Your task to perform on an android device: What's on my calendar tomorrow? Image 0: 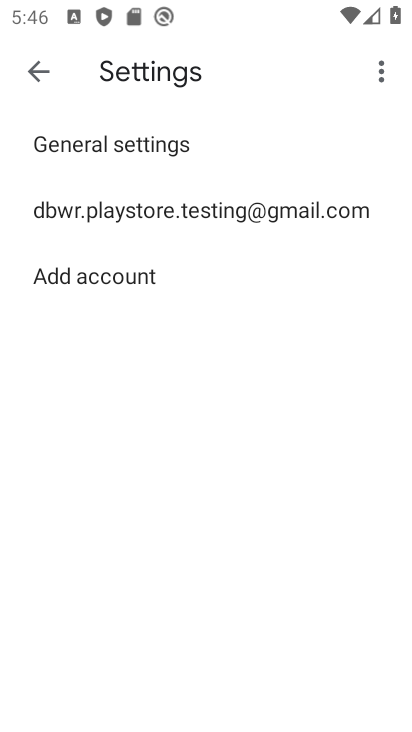
Step 0: press home button
Your task to perform on an android device: What's on my calendar tomorrow? Image 1: 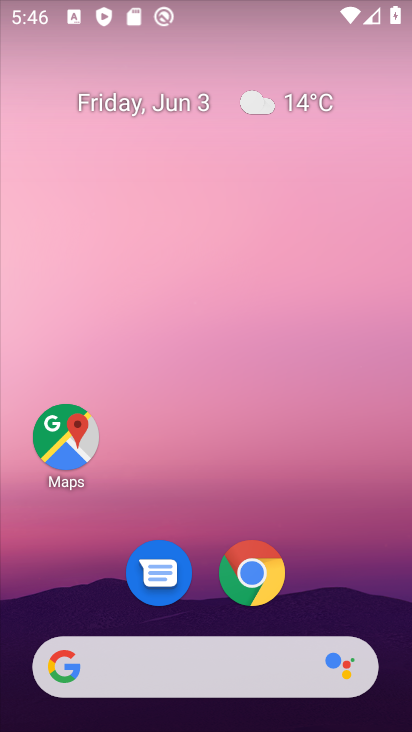
Step 1: drag from (268, 651) to (201, 1)
Your task to perform on an android device: What's on my calendar tomorrow? Image 2: 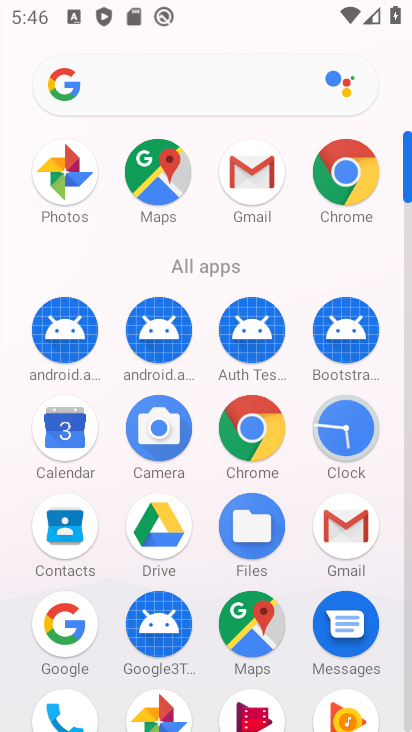
Step 2: click (71, 446)
Your task to perform on an android device: What's on my calendar tomorrow? Image 3: 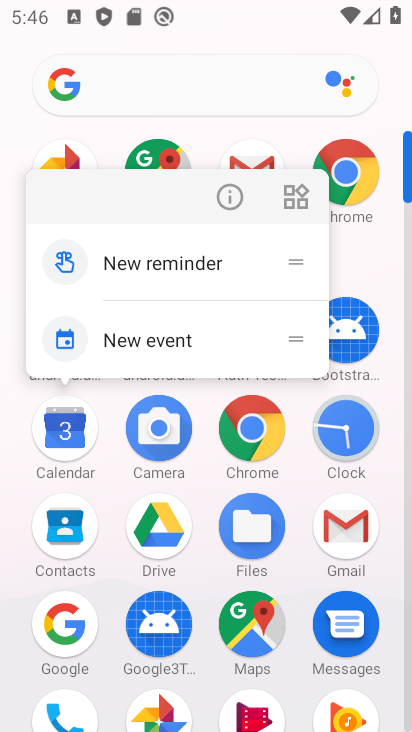
Step 3: click (74, 446)
Your task to perform on an android device: What's on my calendar tomorrow? Image 4: 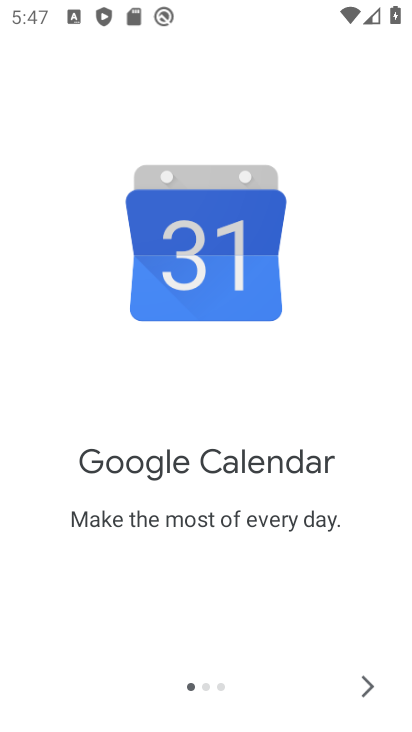
Step 4: click (363, 679)
Your task to perform on an android device: What's on my calendar tomorrow? Image 5: 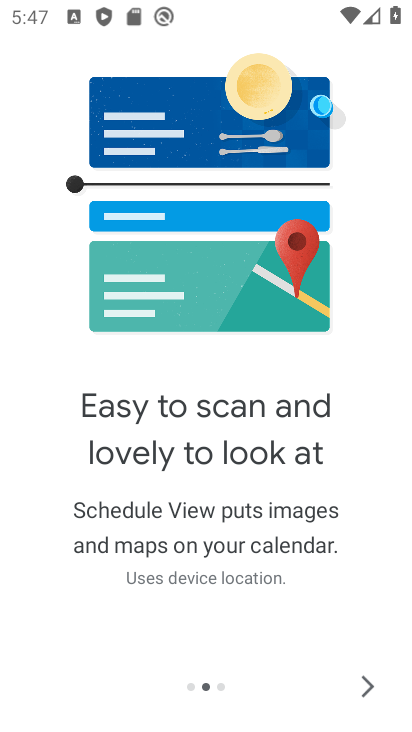
Step 5: click (363, 679)
Your task to perform on an android device: What's on my calendar tomorrow? Image 6: 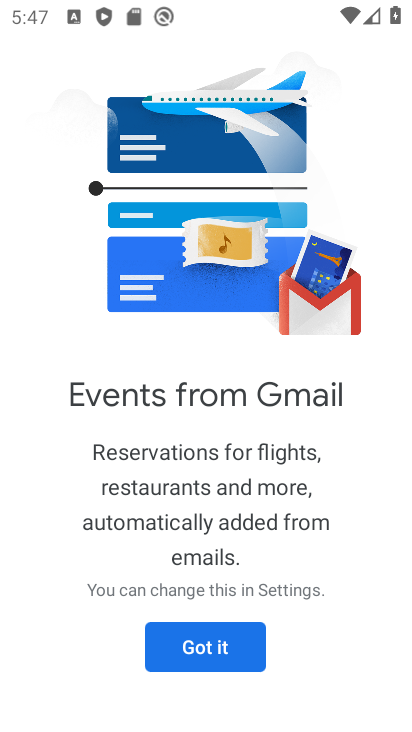
Step 6: click (197, 641)
Your task to perform on an android device: What's on my calendar tomorrow? Image 7: 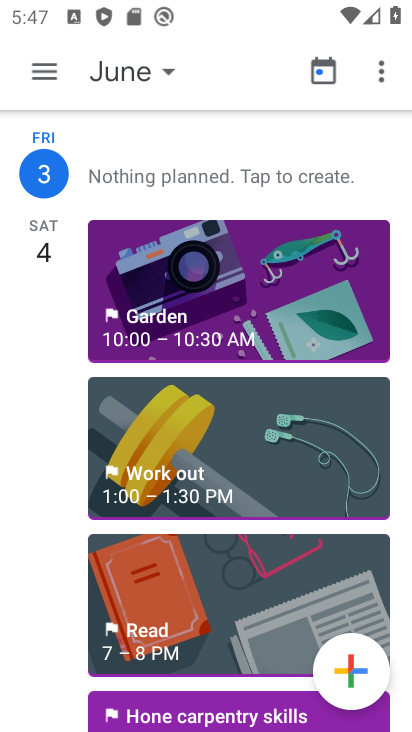
Step 7: click (168, 67)
Your task to perform on an android device: What's on my calendar tomorrow? Image 8: 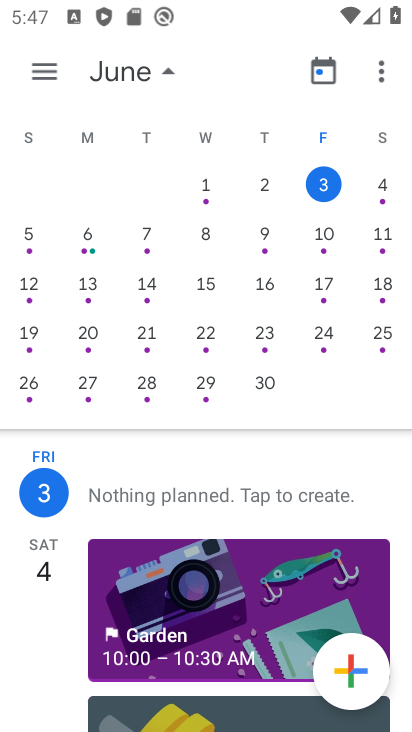
Step 8: click (378, 190)
Your task to perform on an android device: What's on my calendar tomorrow? Image 9: 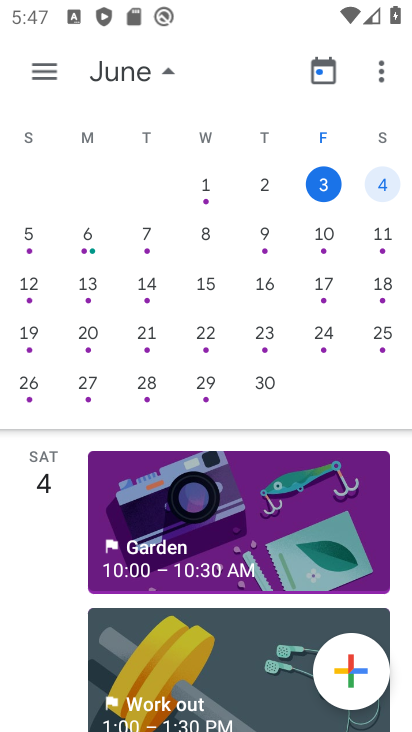
Step 9: task complete